Your task to perform on an android device: Go to sound settings Image 0: 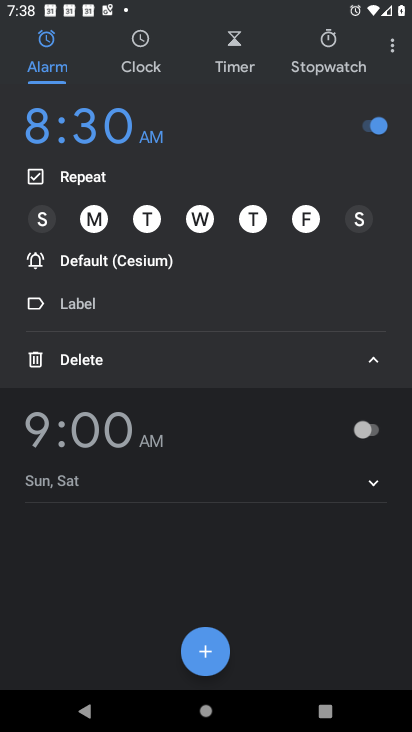
Step 0: press home button
Your task to perform on an android device: Go to sound settings Image 1: 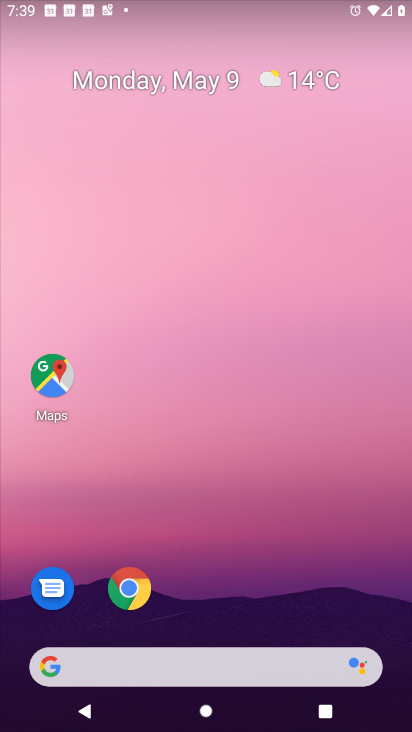
Step 1: drag from (324, 622) to (319, 179)
Your task to perform on an android device: Go to sound settings Image 2: 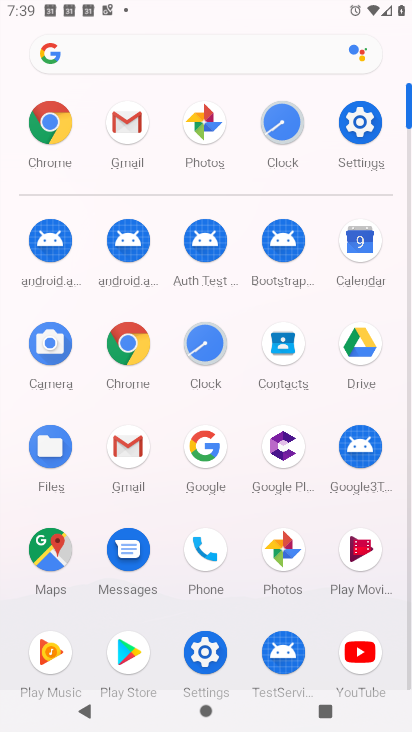
Step 2: click (204, 635)
Your task to perform on an android device: Go to sound settings Image 3: 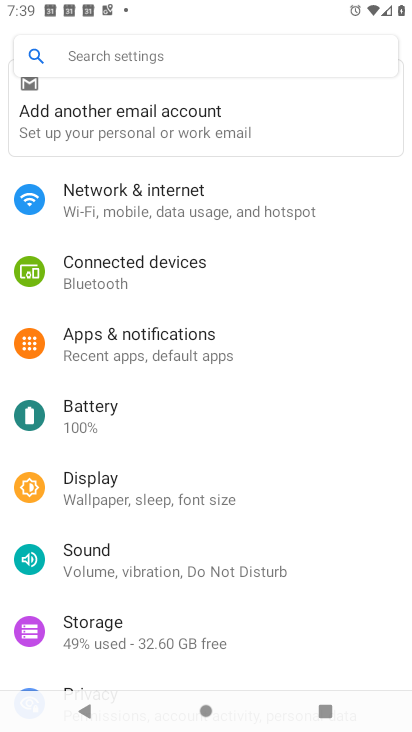
Step 3: click (124, 570)
Your task to perform on an android device: Go to sound settings Image 4: 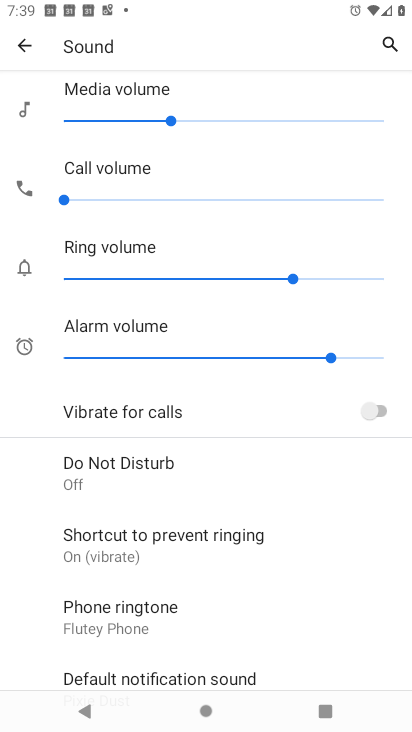
Step 4: task complete